Your task to perform on an android device: Open calendar and show me the third week of next month Image 0: 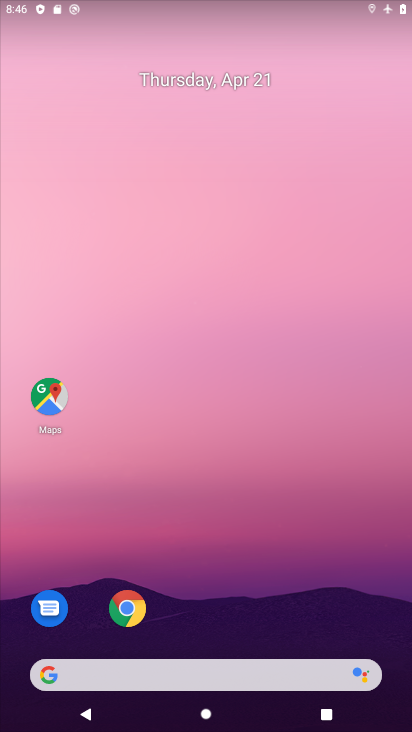
Step 0: drag from (319, 599) to (299, 30)
Your task to perform on an android device: Open calendar and show me the third week of next month Image 1: 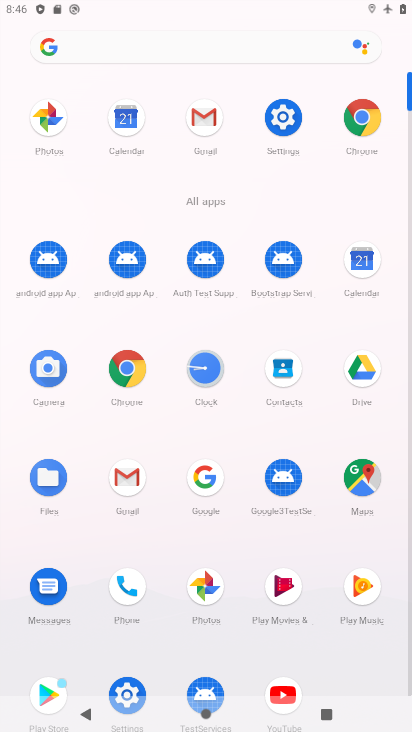
Step 1: click (355, 262)
Your task to perform on an android device: Open calendar and show me the third week of next month Image 2: 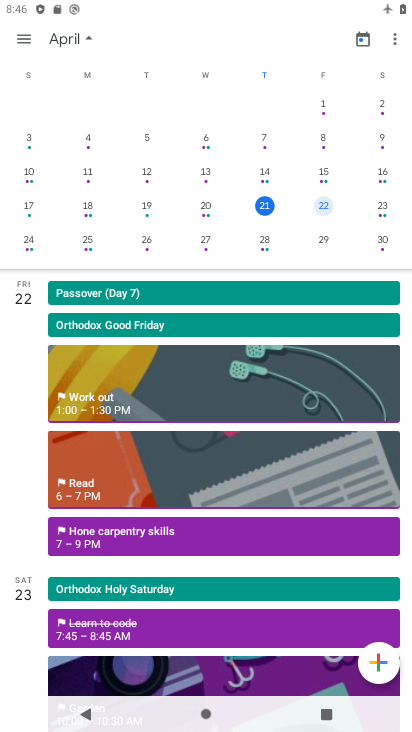
Step 2: drag from (339, 172) to (14, 157)
Your task to perform on an android device: Open calendar and show me the third week of next month Image 3: 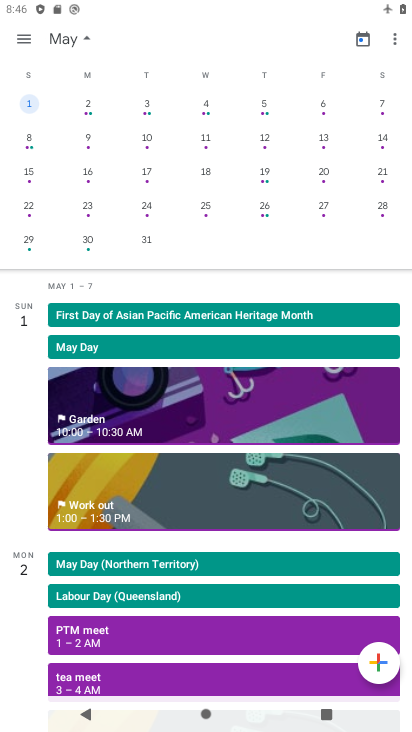
Step 3: click (149, 175)
Your task to perform on an android device: Open calendar and show me the third week of next month Image 4: 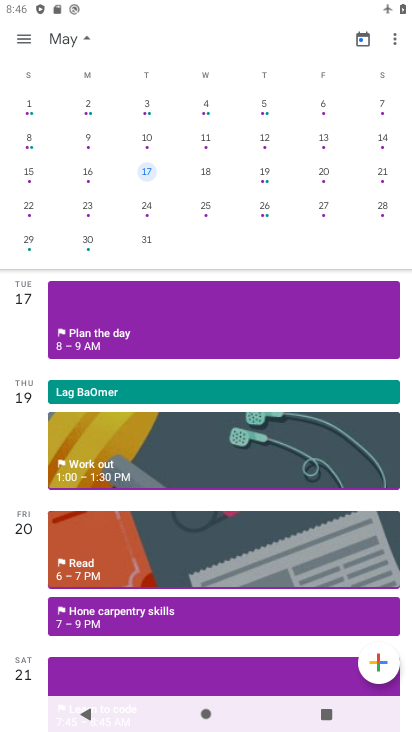
Step 4: click (23, 36)
Your task to perform on an android device: Open calendar and show me the third week of next month Image 5: 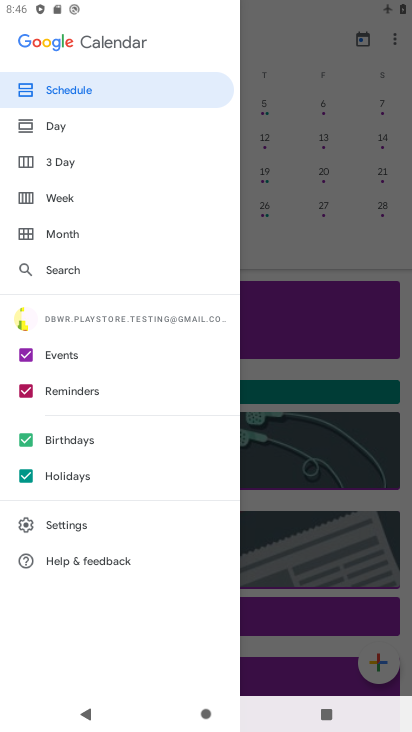
Step 5: click (61, 200)
Your task to perform on an android device: Open calendar and show me the third week of next month Image 6: 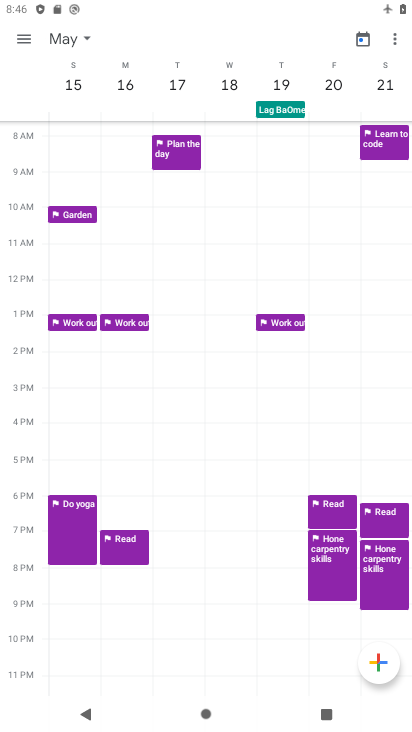
Step 6: task complete